Your task to perform on an android device: turn notification dots off Image 0: 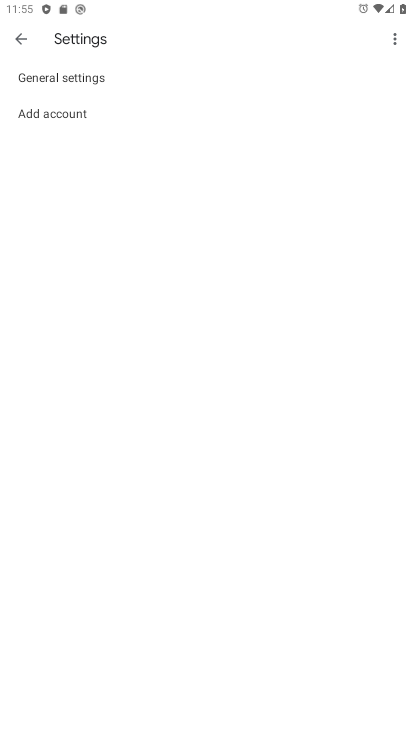
Step 0: press home button
Your task to perform on an android device: turn notification dots off Image 1: 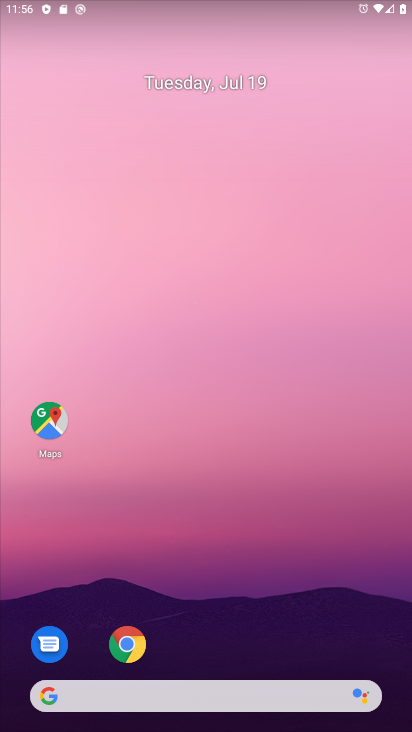
Step 1: drag from (237, 639) to (213, 18)
Your task to perform on an android device: turn notification dots off Image 2: 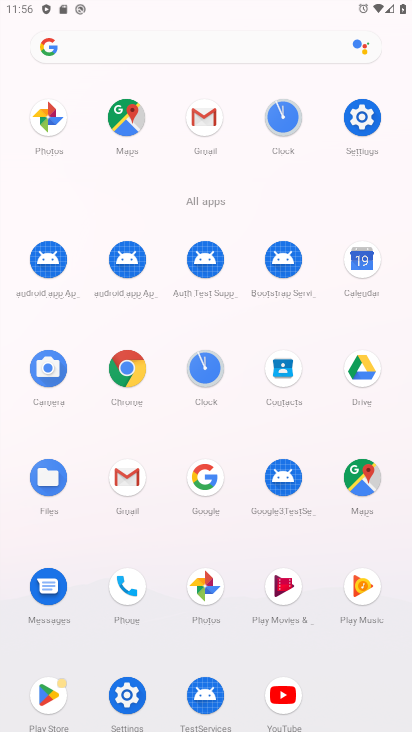
Step 2: click (354, 125)
Your task to perform on an android device: turn notification dots off Image 3: 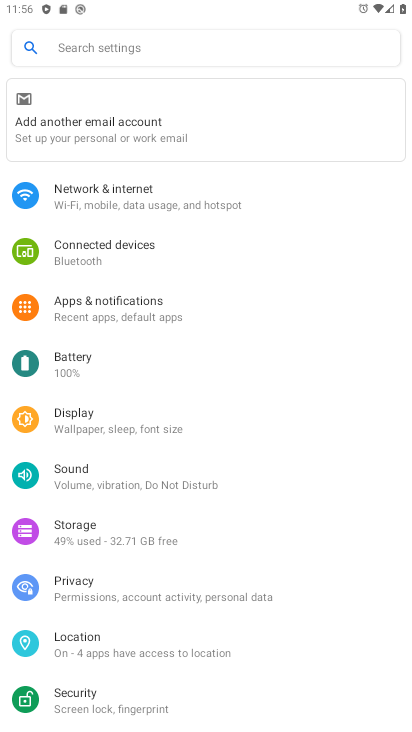
Step 3: click (172, 300)
Your task to perform on an android device: turn notification dots off Image 4: 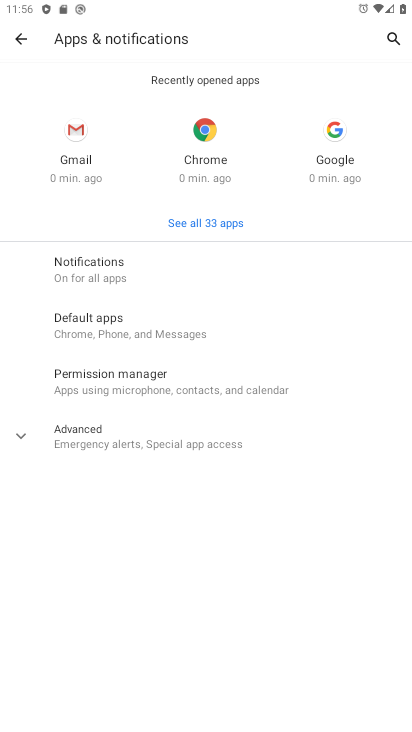
Step 4: click (104, 437)
Your task to perform on an android device: turn notification dots off Image 5: 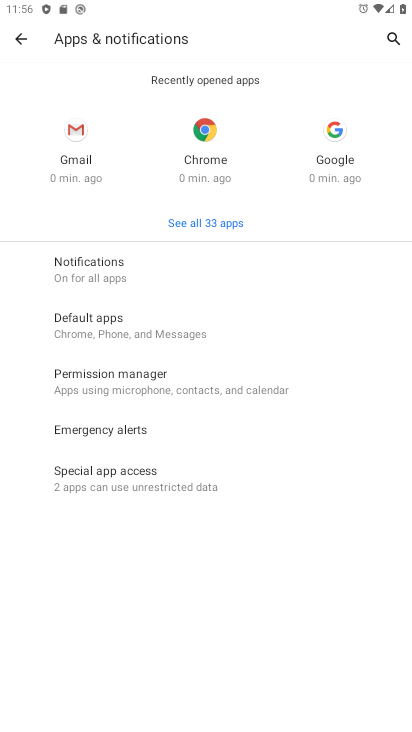
Step 5: click (135, 283)
Your task to perform on an android device: turn notification dots off Image 6: 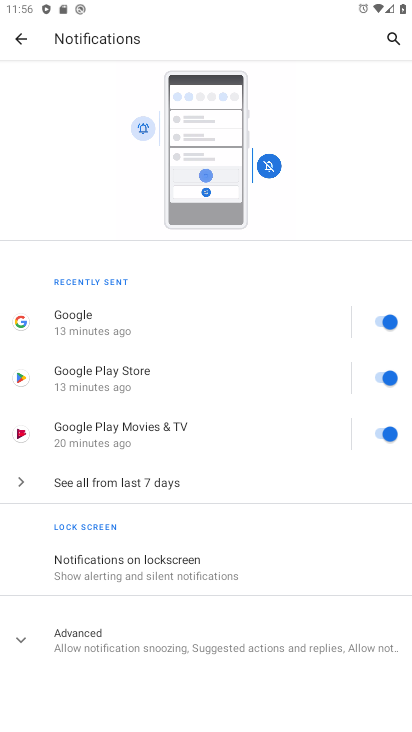
Step 6: click (224, 633)
Your task to perform on an android device: turn notification dots off Image 7: 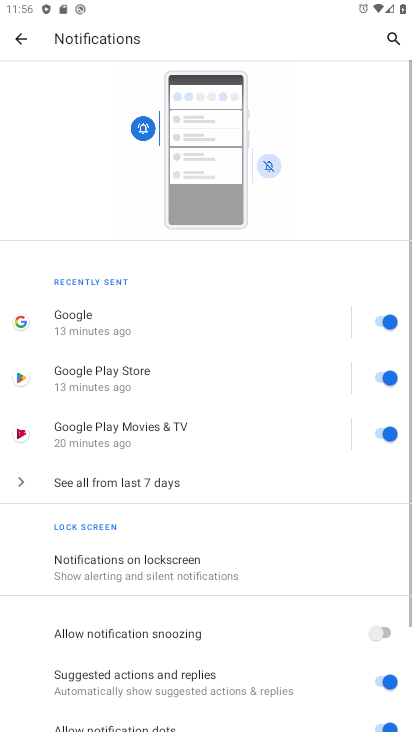
Step 7: drag from (283, 620) to (302, 227)
Your task to perform on an android device: turn notification dots off Image 8: 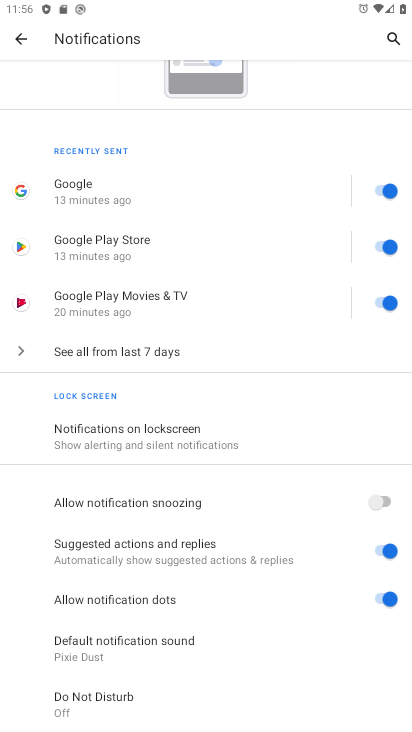
Step 8: click (379, 611)
Your task to perform on an android device: turn notification dots off Image 9: 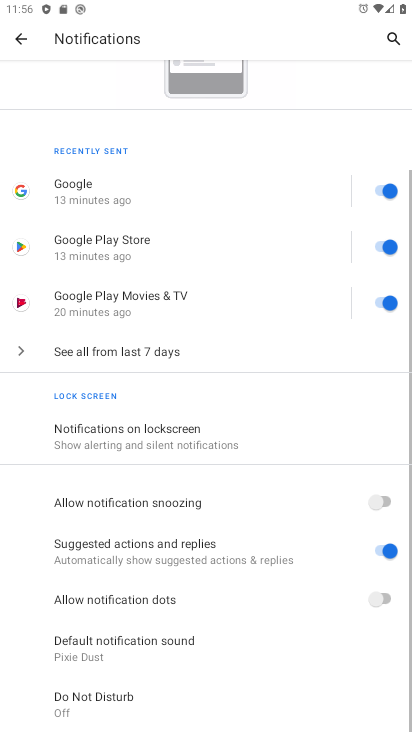
Step 9: task complete